Your task to perform on an android device: toggle sleep mode Image 0: 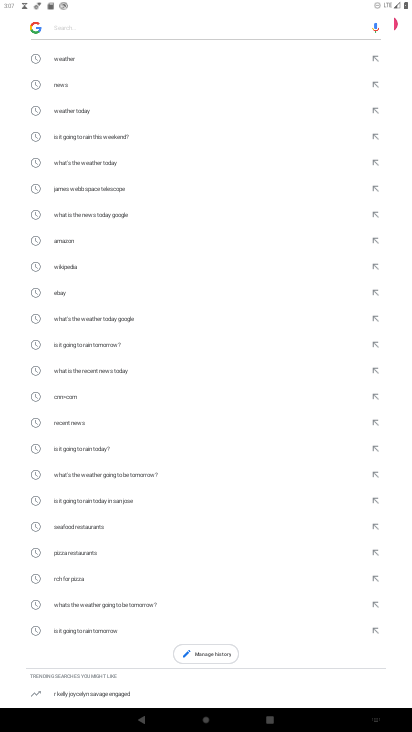
Step 0: press home button
Your task to perform on an android device: toggle sleep mode Image 1: 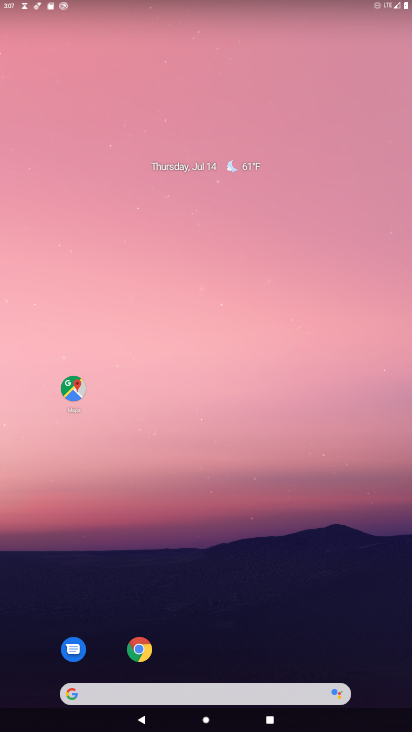
Step 1: drag from (108, 622) to (175, 1)
Your task to perform on an android device: toggle sleep mode Image 2: 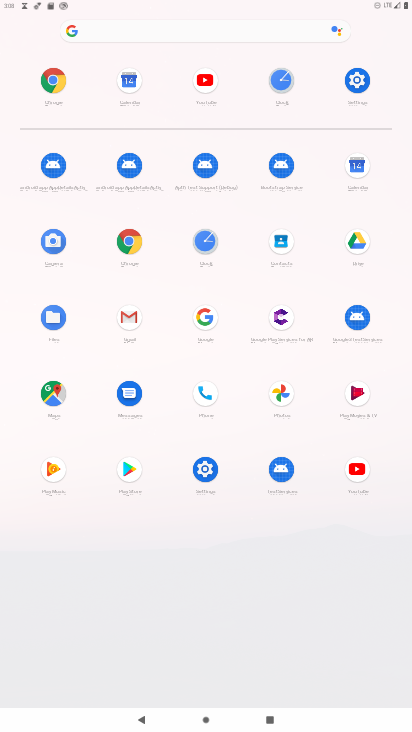
Step 2: click (358, 77)
Your task to perform on an android device: toggle sleep mode Image 3: 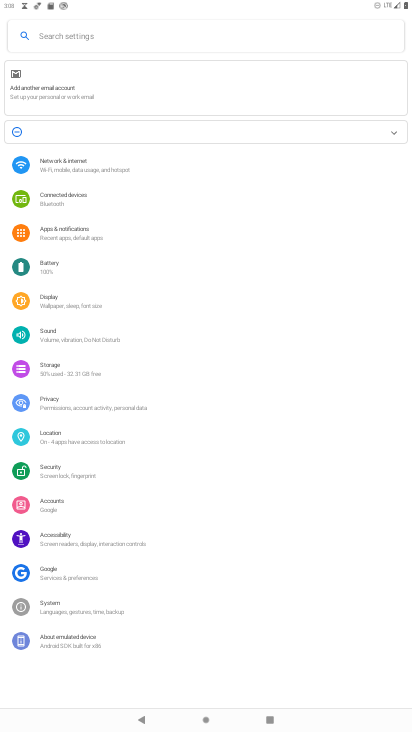
Step 3: click (69, 303)
Your task to perform on an android device: toggle sleep mode Image 4: 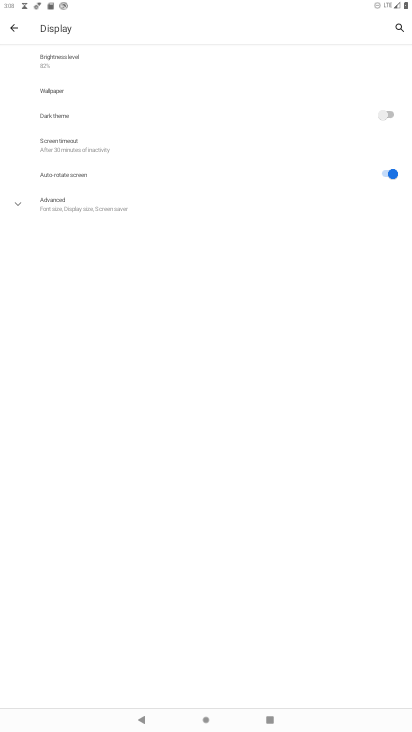
Step 4: task complete